Your task to perform on an android device: Do I have any events today? Image 0: 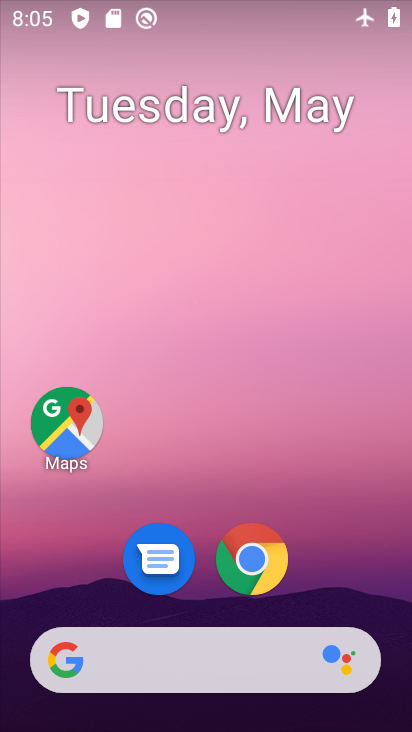
Step 0: drag from (207, 621) to (204, 179)
Your task to perform on an android device: Do I have any events today? Image 1: 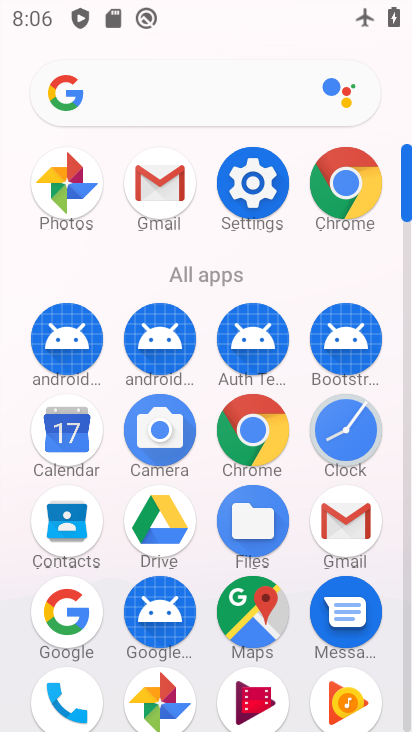
Step 1: drag from (134, 592) to (131, 340)
Your task to perform on an android device: Do I have any events today? Image 2: 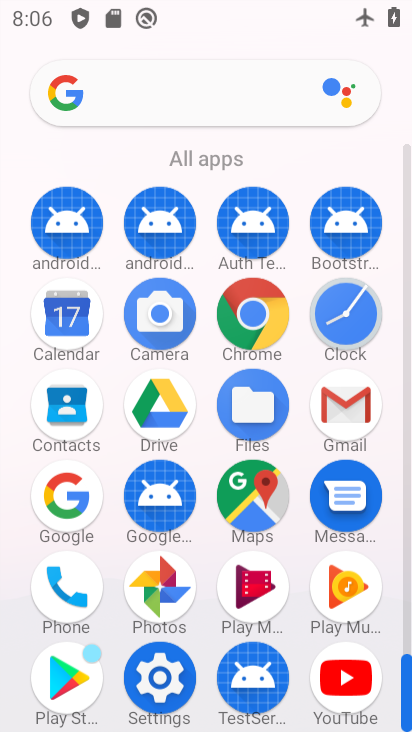
Step 2: click (76, 285)
Your task to perform on an android device: Do I have any events today? Image 3: 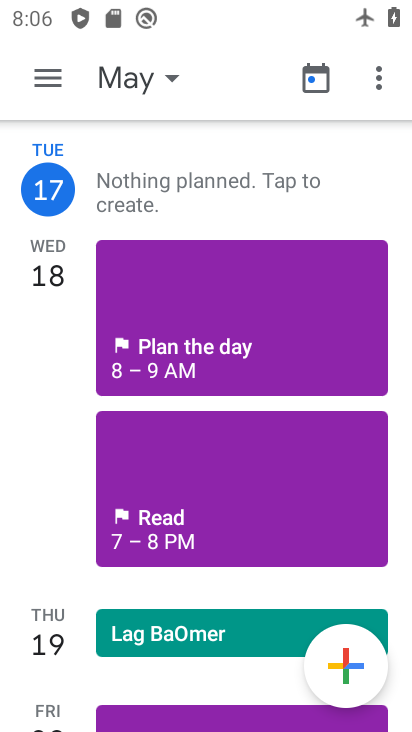
Step 3: click (164, 92)
Your task to perform on an android device: Do I have any events today? Image 4: 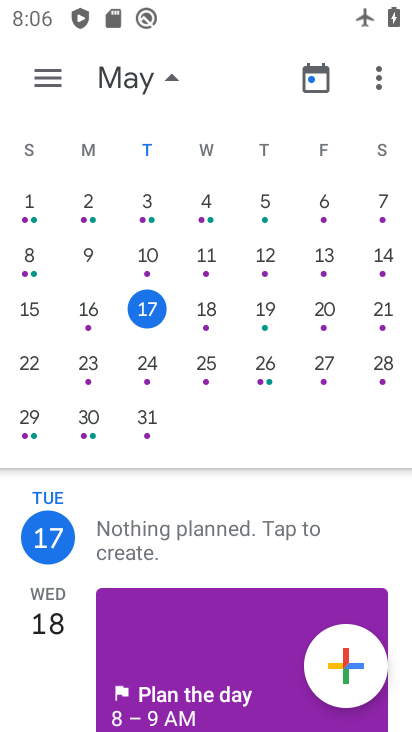
Step 4: click (159, 305)
Your task to perform on an android device: Do I have any events today? Image 5: 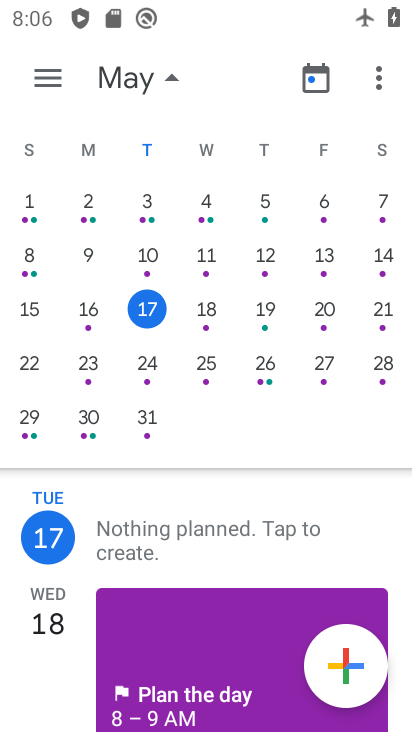
Step 5: task complete